Your task to perform on an android device: find photos in the google photos app Image 0: 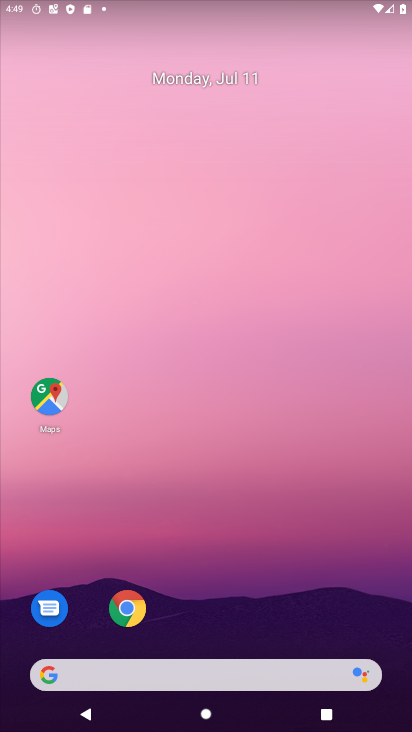
Step 0: drag from (276, 661) to (215, 284)
Your task to perform on an android device: find photos in the google photos app Image 1: 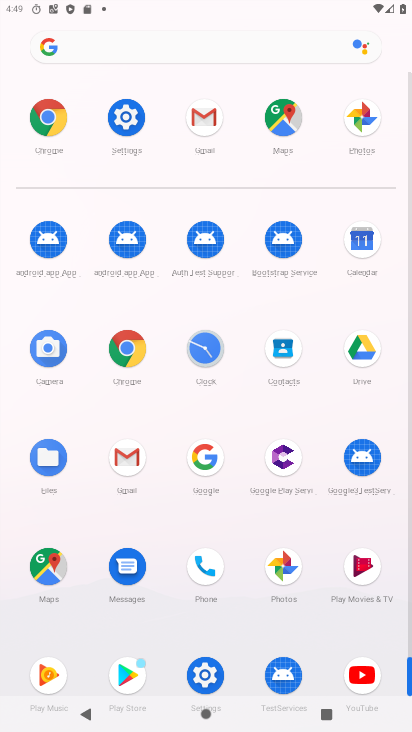
Step 1: click (285, 567)
Your task to perform on an android device: find photos in the google photos app Image 2: 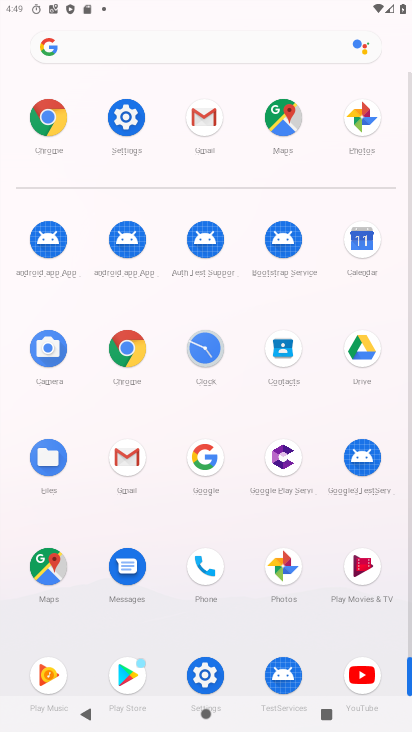
Step 2: click (285, 567)
Your task to perform on an android device: find photos in the google photos app Image 3: 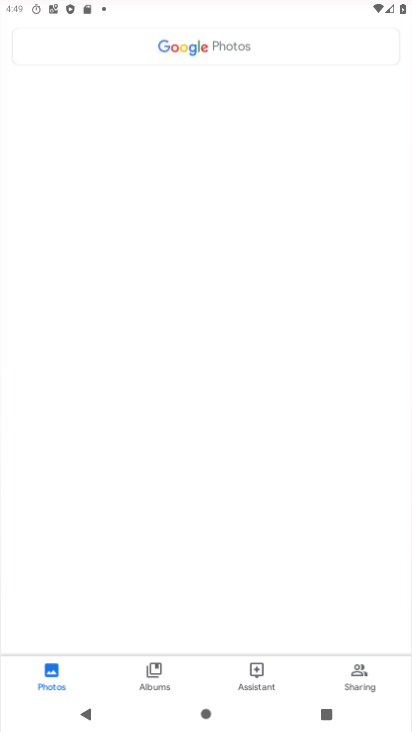
Step 3: click (290, 564)
Your task to perform on an android device: find photos in the google photos app Image 4: 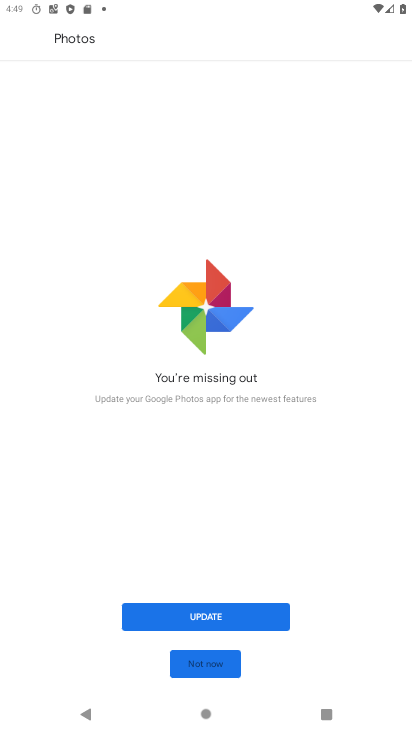
Step 4: click (212, 664)
Your task to perform on an android device: find photos in the google photos app Image 5: 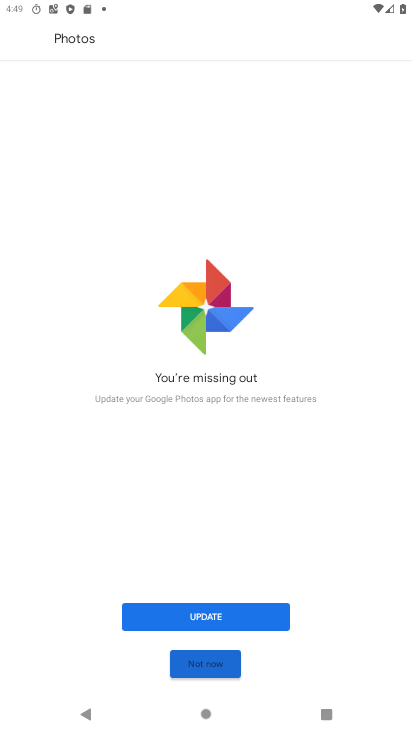
Step 5: click (218, 660)
Your task to perform on an android device: find photos in the google photos app Image 6: 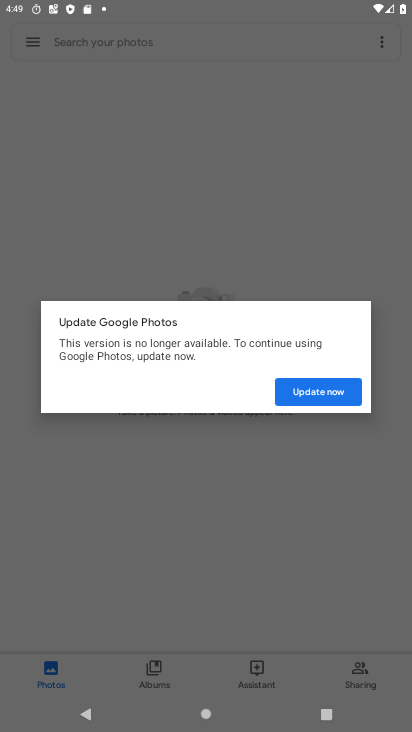
Step 6: click (300, 233)
Your task to perform on an android device: find photos in the google photos app Image 7: 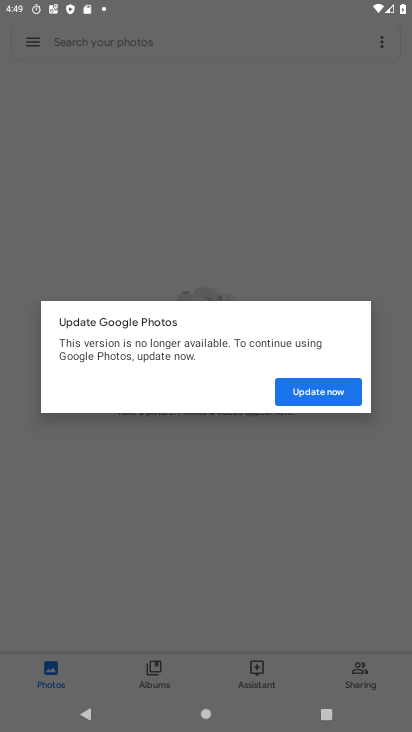
Step 7: click (298, 233)
Your task to perform on an android device: find photos in the google photos app Image 8: 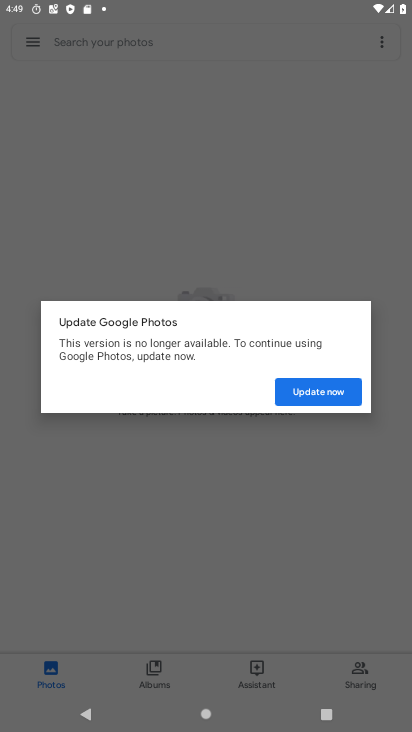
Step 8: click (298, 233)
Your task to perform on an android device: find photos in the google photos app Image 9: 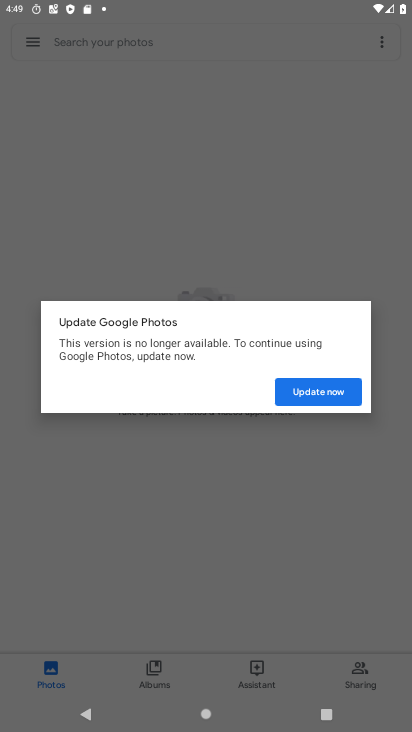
Step 9: click (312, 392)
Your task to perform on an android device: find photos in the google photos app Image 10: 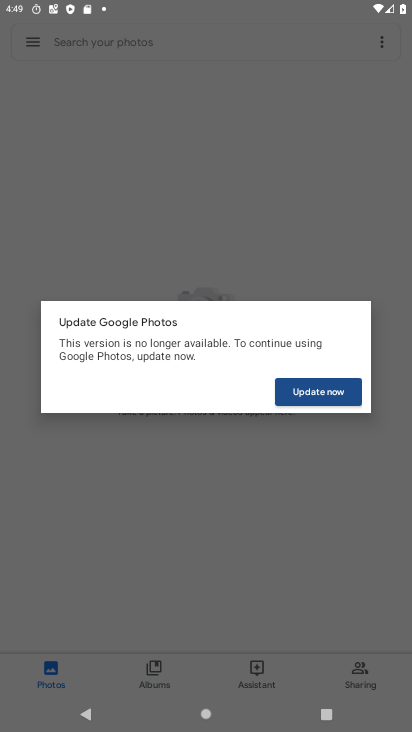
Step 10: click (315, 383)
Your task to perform on an android device: find photos in the google photos app Image 11: 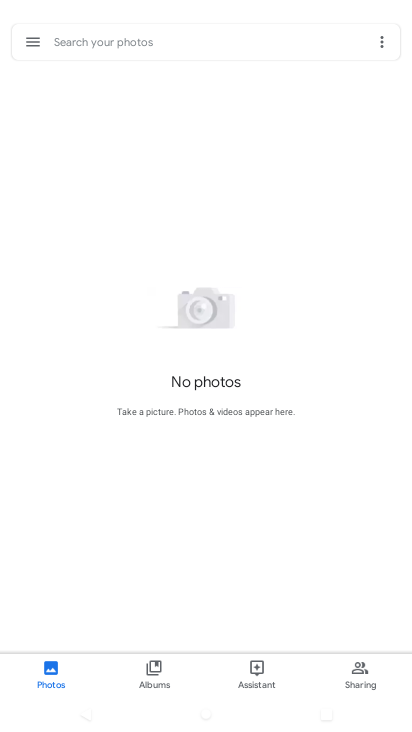
Step 11: click (315, 383)
Your task to perform on an android device: find photos in the google photos app Image 12: 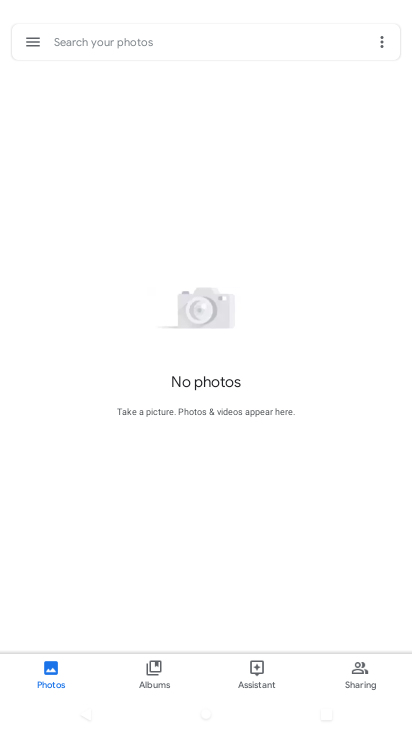
Step 12: click (315, 382)
Your task to perform on an android device: find photos in the google photos app Image 13: 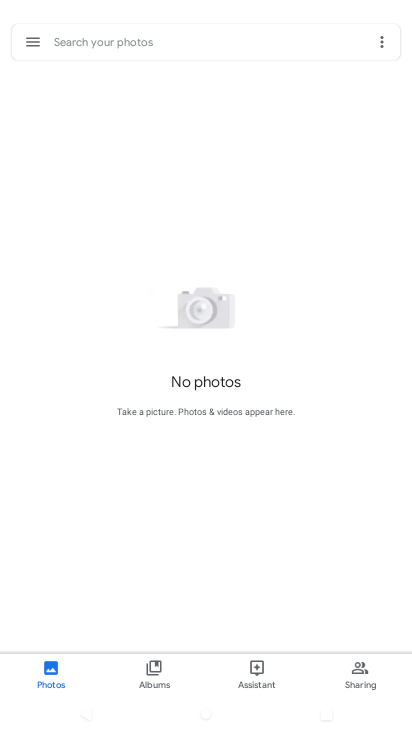
Step 13: click (316, 382)
Your task to perform on an android device: find photos in the google photos app Image 14: 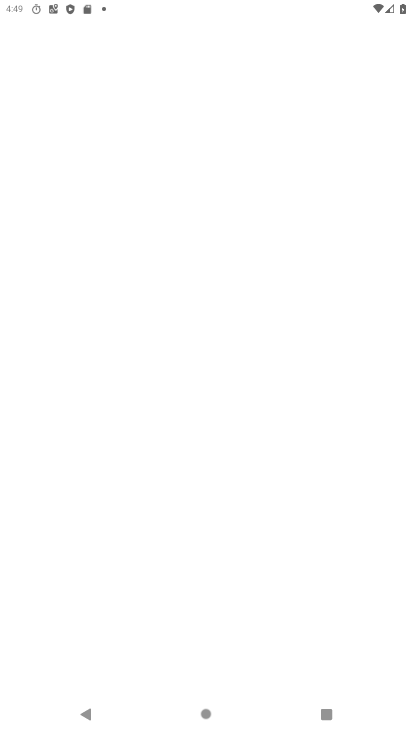
Step 14: task complete